Your task to perform on an android device: What's the weather going to be this weekend? Image 0: 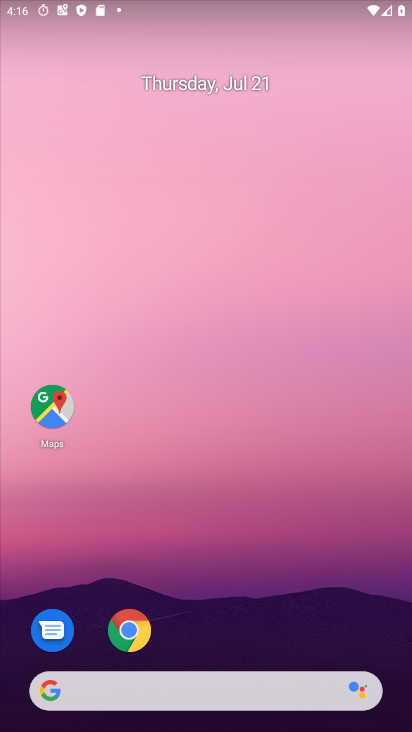
Step 0: drag from (254, 684) to (295, 64)
Your task to perform on an android device: What's the weather going to be this weekend? Image 1: 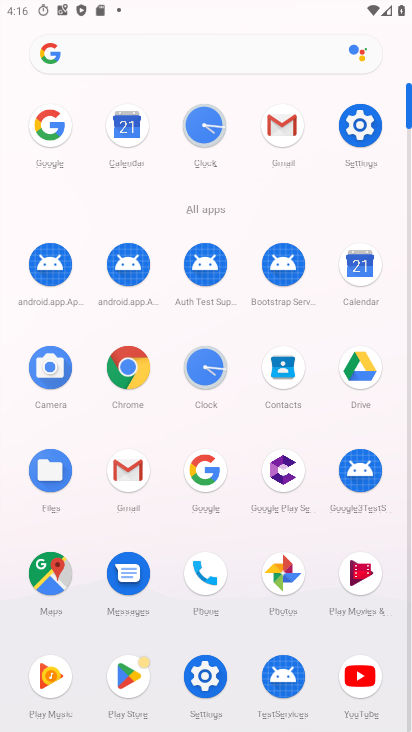
Step 1: click (204, 469)
Your task to perform on an android device: What's the weather going to be this weekend? Image 2: 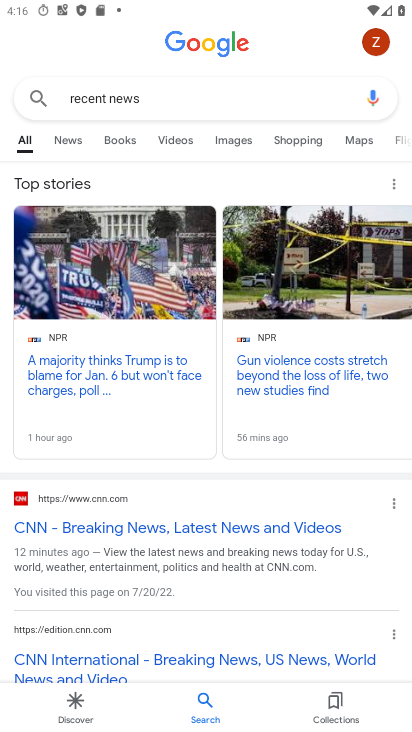
Step 2: click (270, 104)
Your task to perform on an android device: What's the weather going to be this weekend? Image 3: 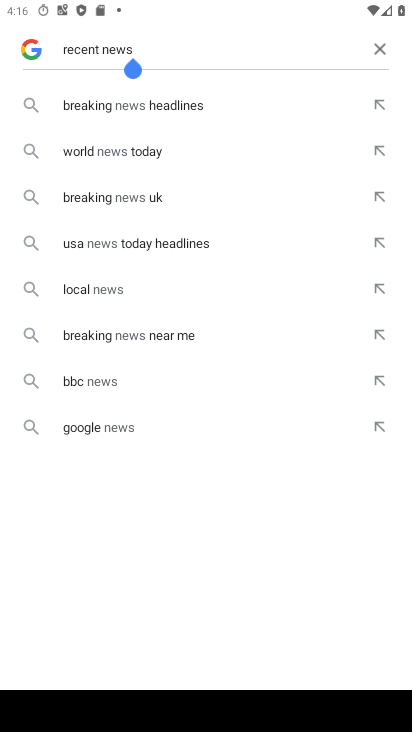
Step 3: click (378, 50)
Your task to perform on an android device: What's the weather going to be this weekend? Image 4: 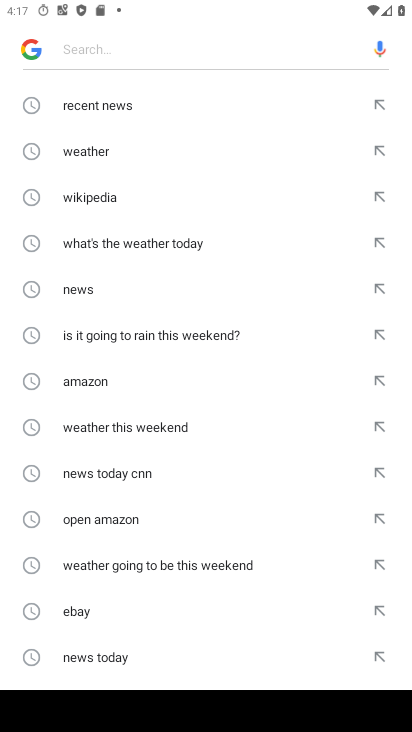
Step 4: type "What's the weather going to be this weekend?"
Your task to perform on an android device: What's the weather going to be this weekend? Image 5: 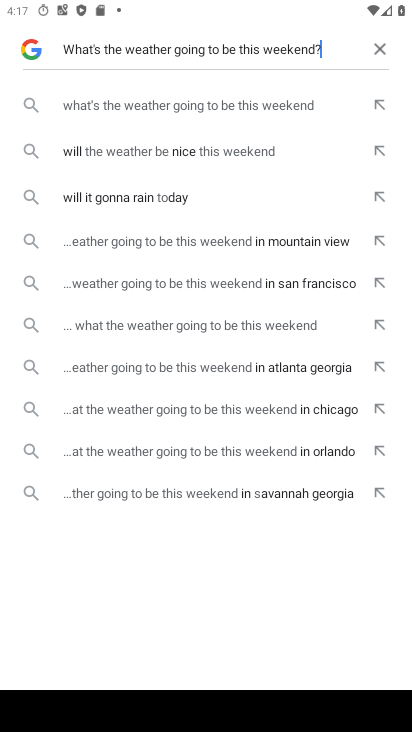
Step 5: click (187, 113)
Your task to perform on an android device: What's the weather going to be this weekend? Image 6: 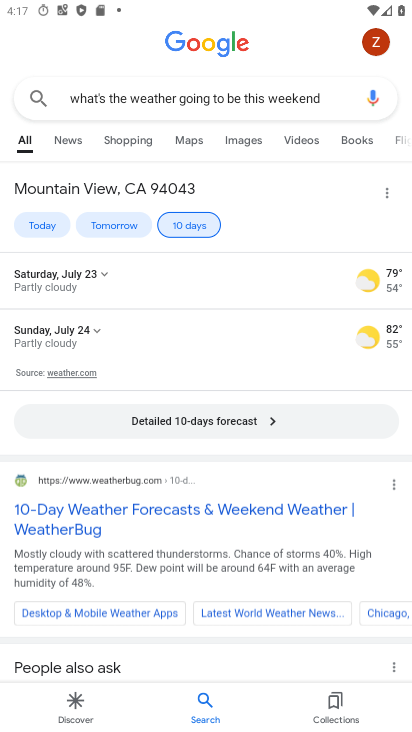
Step 6: task complete